Your task to perform on an android device: turn off translation in the chrome app Image 0: 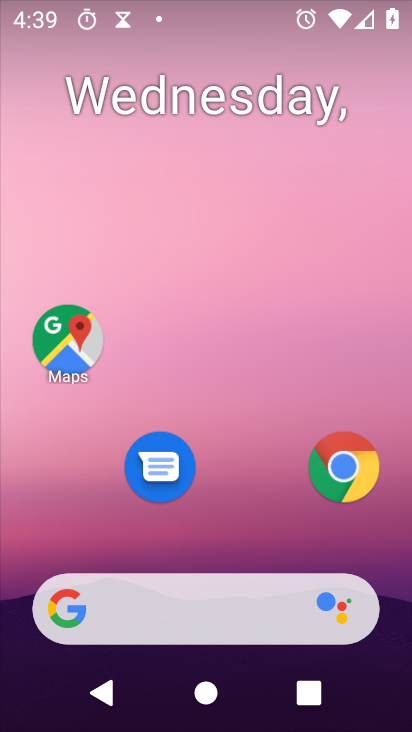
Step 0: click (349, 488)
Your task to perform on an android device: turn off translation in the chrome app Image 1: 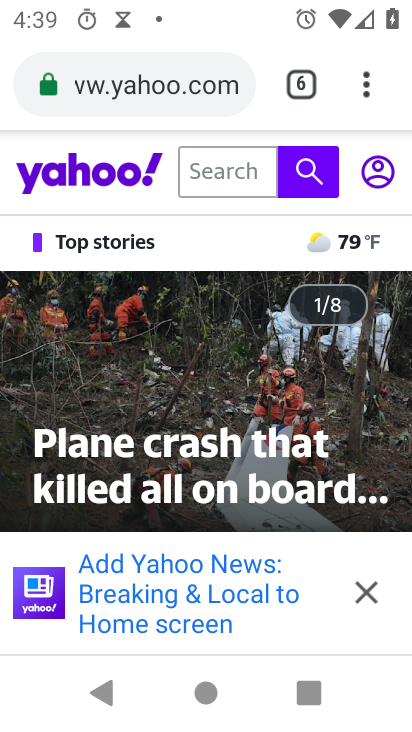
Step 1: click (360, 109)
Your task to perform on an android device: turn off translation in the chrome app Image 2: 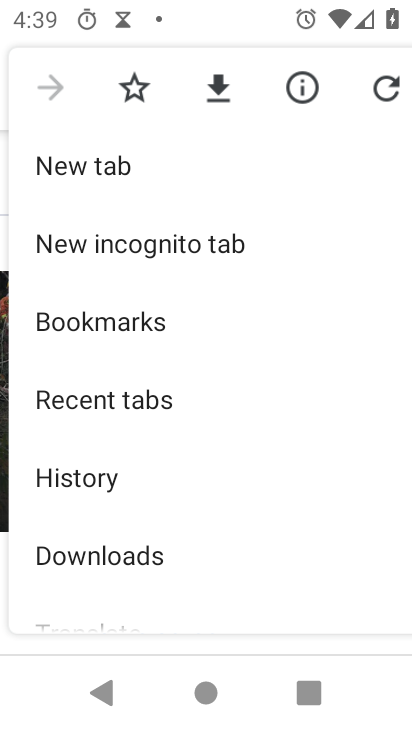
Step 2: drag from (232, 576) to (181, 126)
Your task to perform on an android device: turn off translation in the chrome app Image 3: 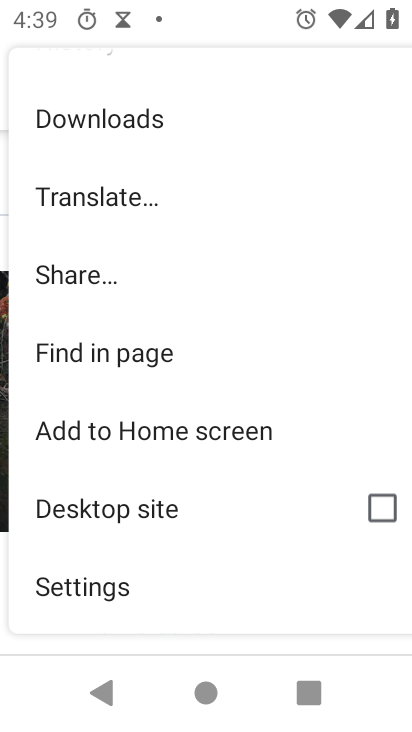
Step 3: click (211, 580)
Your task to perform on an android device: turn off translation in the chrome app Image 4: 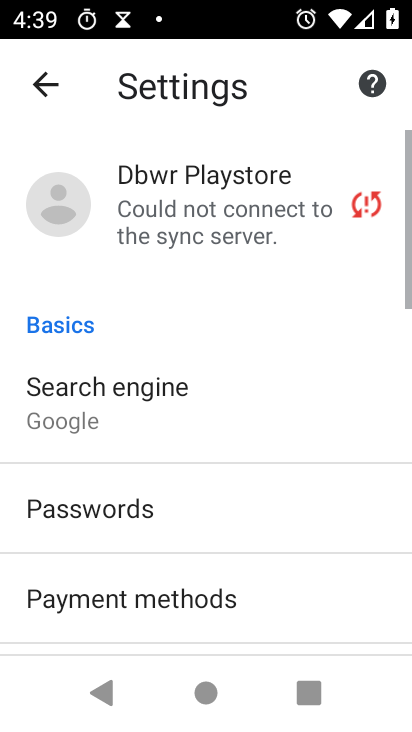
Step 4: drag from (211, 580) to (148, 144)
Your task to perform on an android device: turn off translation in the chrome app Image 5: 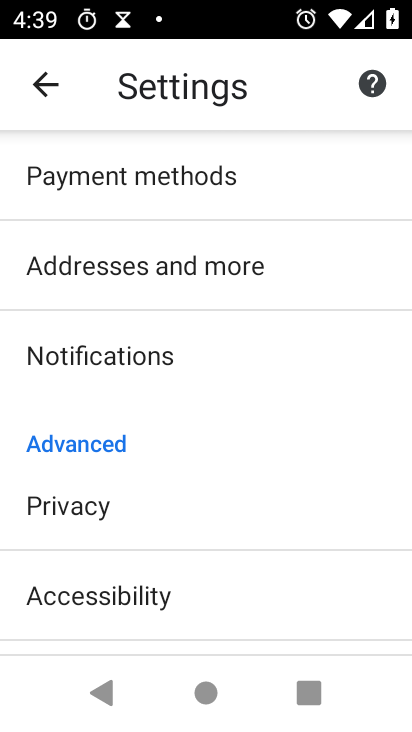
Step 5: drag from (175, 562) to (126, 111)
Your task to perform on an android device: turn off translation in the chrome app Image 6: 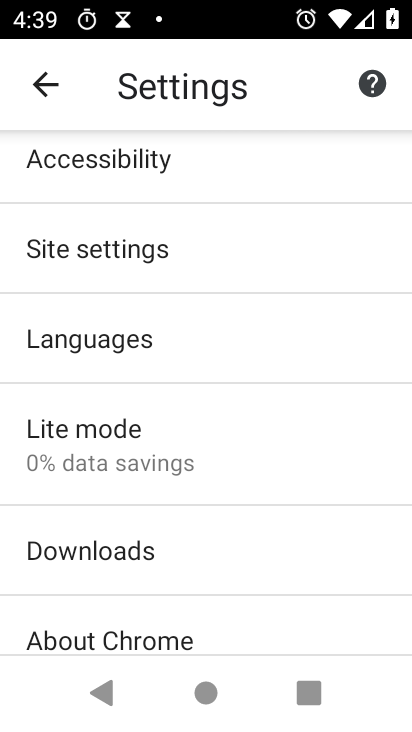
Step 6: click (133, 355)
Your task to perform on an android device: turn off translation in the chrome app Image 7: 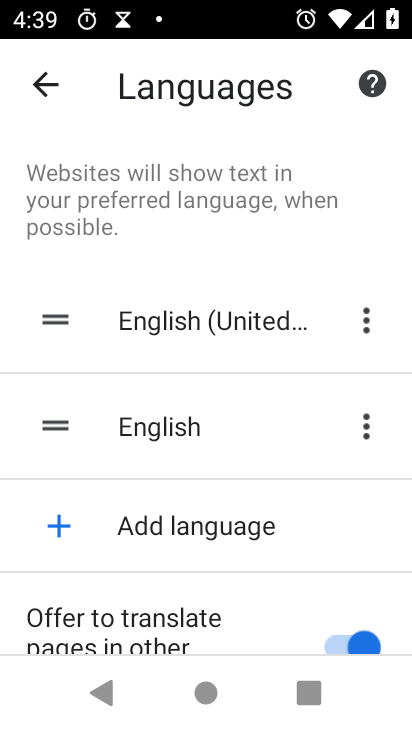
Step 7: click (343, 644)
Your task to perform on an android device: turn off translation in the chrome app Image 8: 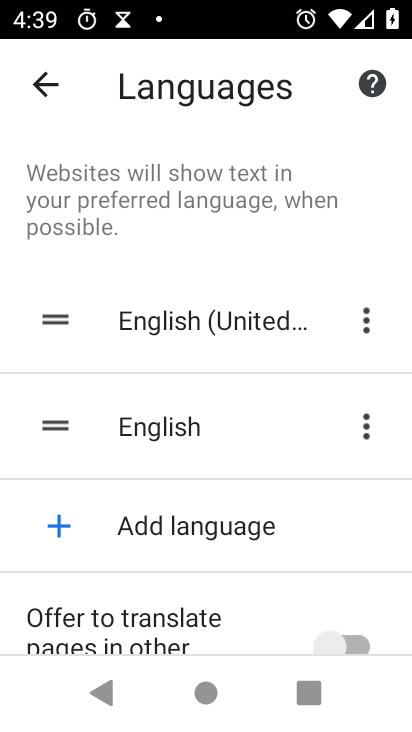
Step 8: task complete